Your task to perform on an android device: open the mobile data screen to see how much data has been used Image 0: 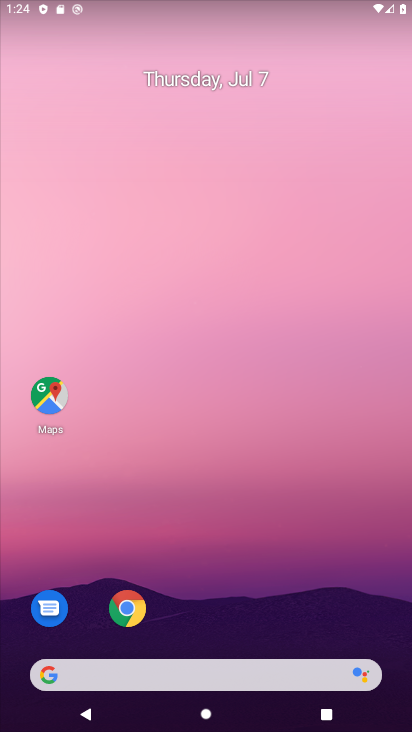
Step 0: drag from (336, 637) to (272, 58)
Your task to perform on an android device: open the mobile data screen to see how much data has been used Image 1: 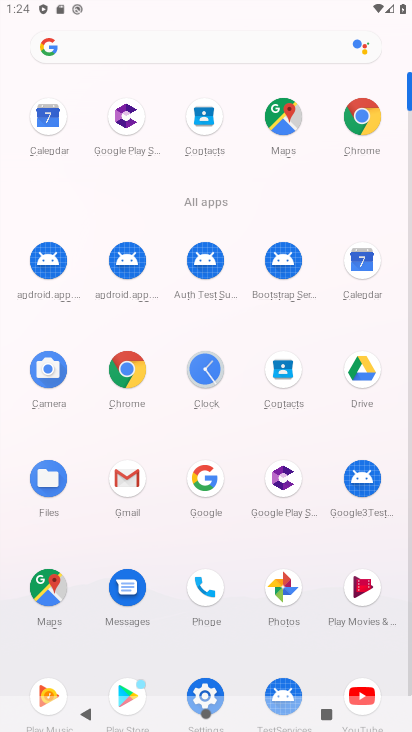
Step 1: drag from (247, 665) to (254, 398)
Your task to perform on an android device: open the mobile data screen to see how much data has been used Image 2: 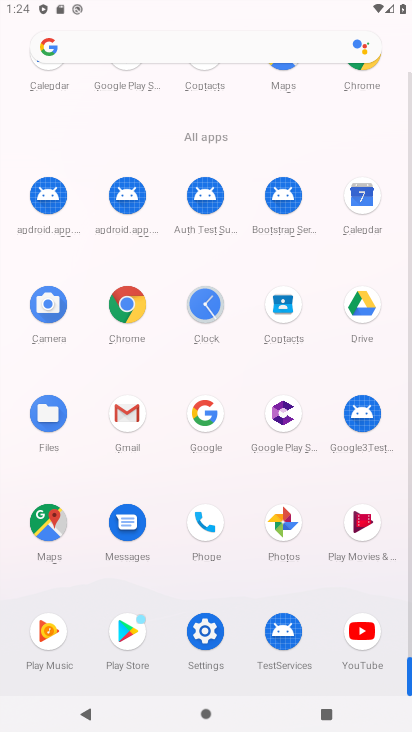
Step 2: click (212, 628)
Your task to perform on an android device: open the mobile data screen to see how much data has been used Image 3: 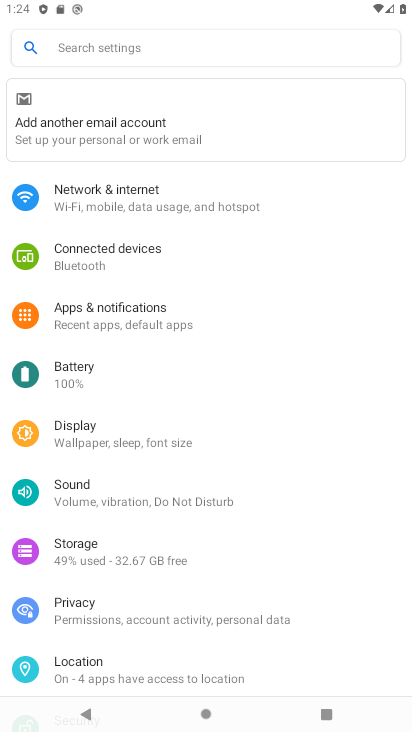
Step 3: click (135, 557)
Your task to perform on an android device: open the mobile data screen to see how much data has been used Image 4: 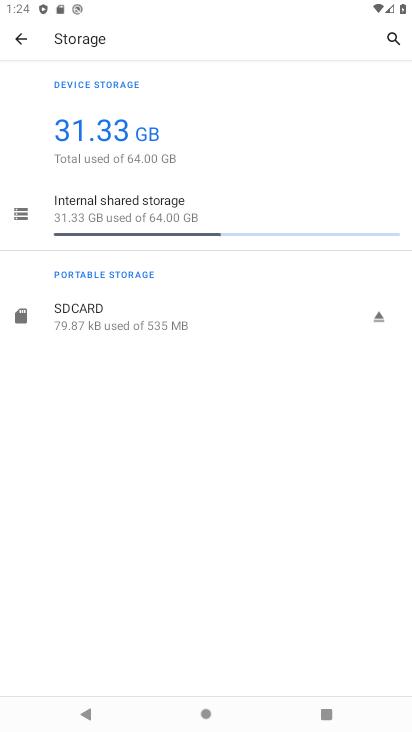
Step 4: task complete